Your task to perform on an android device: Open the calendar and show me this week's events? Image 0: 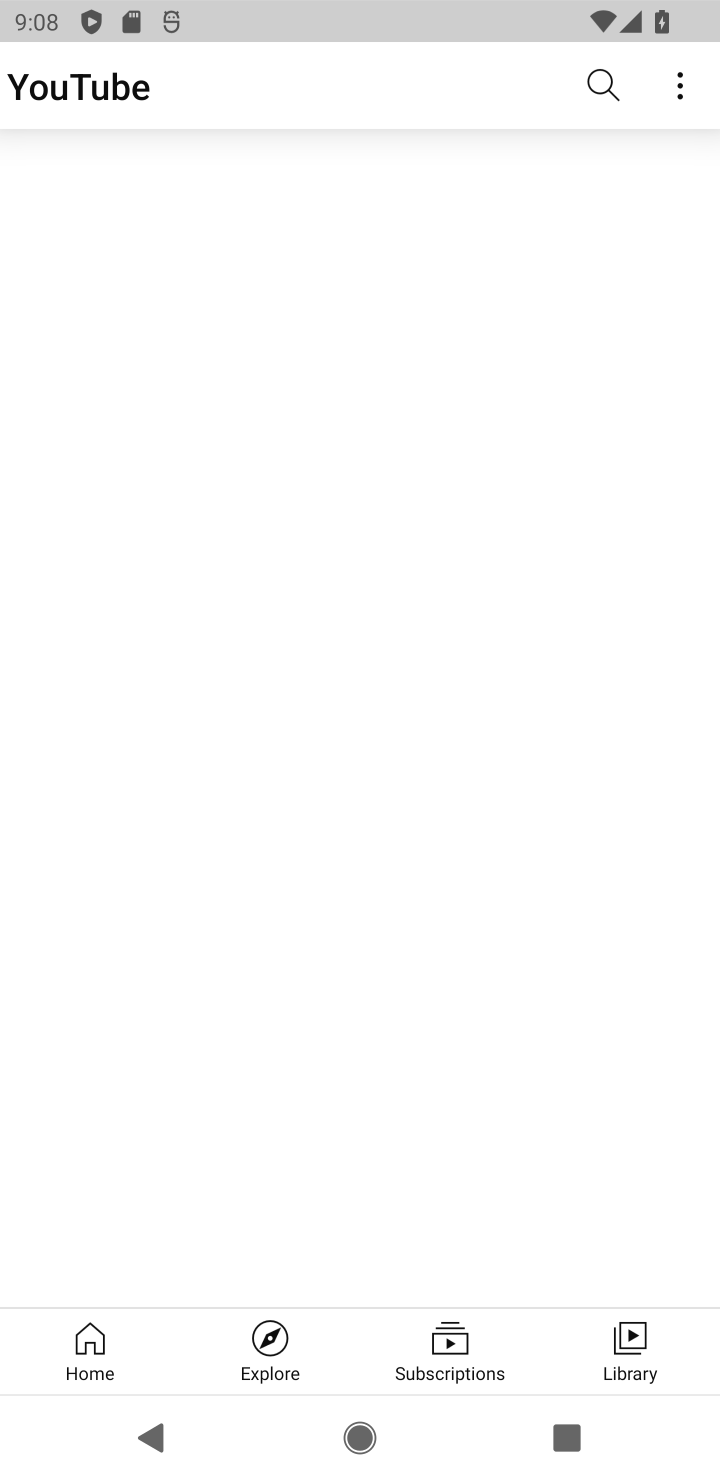
Step 0: press home button
Your task to perform on an android device: Open the calendar and show me this week's events? Image 1: 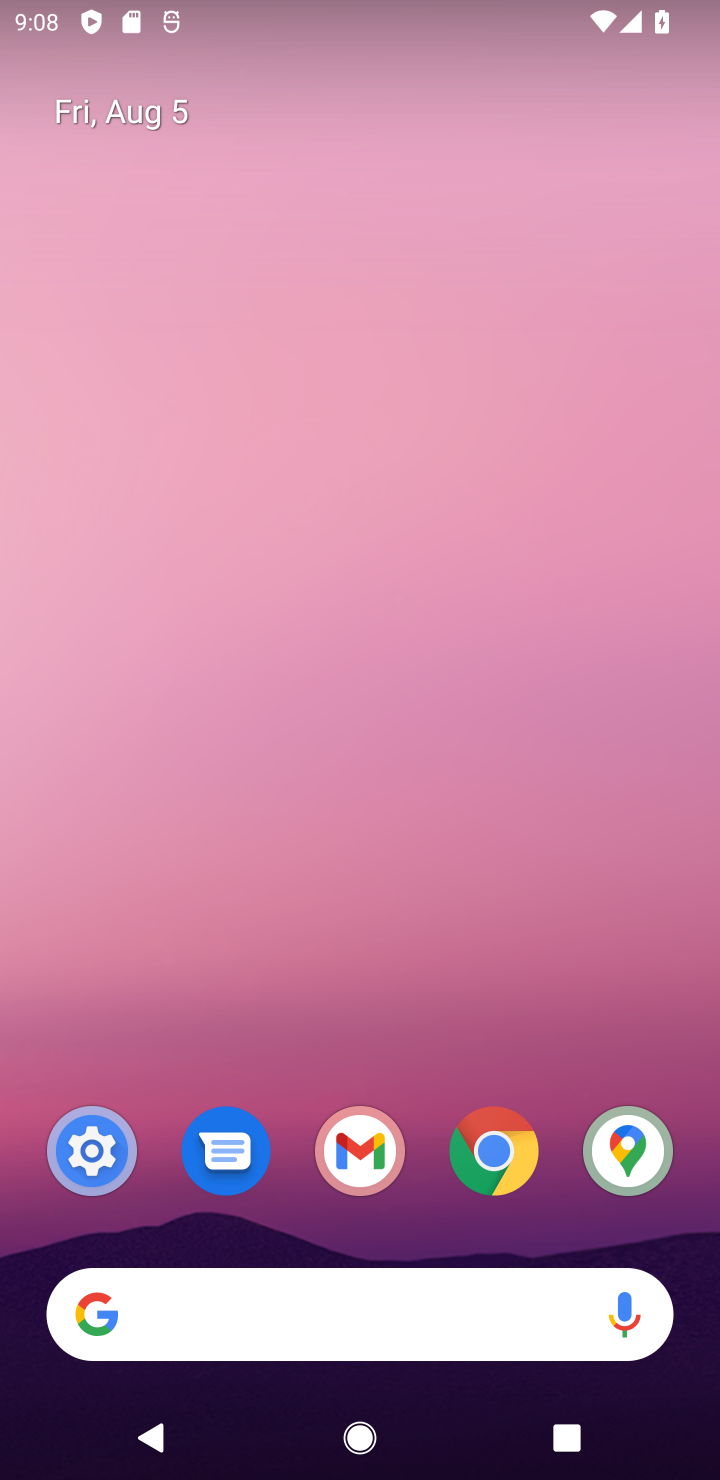
Step 1: drag from (296, 883) to (294, 454)
Your task to perform on an android device: Open the calendar and show me this week's events? Image 2: 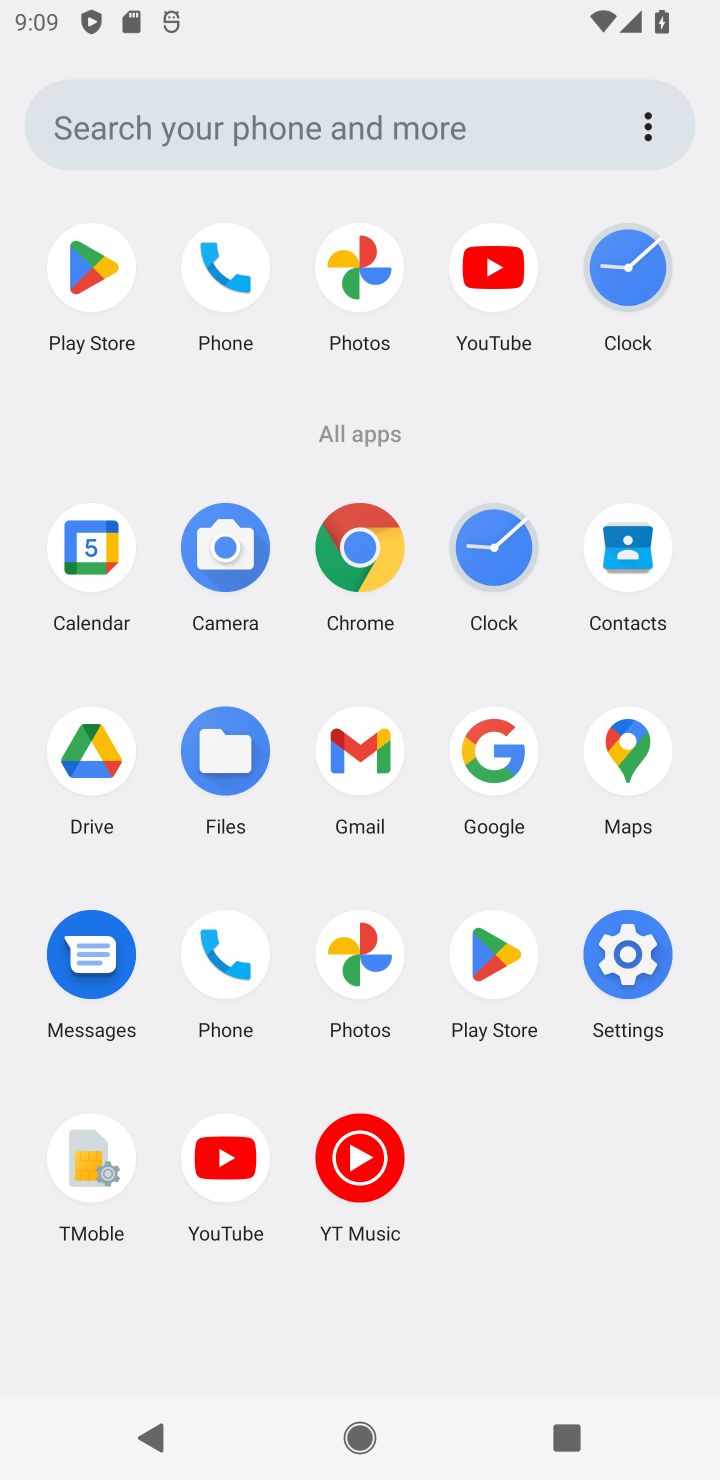
Step 2: click (86, 562)
Your task to perform on an android device: Open the calendar and show me this week's events? Image 3: 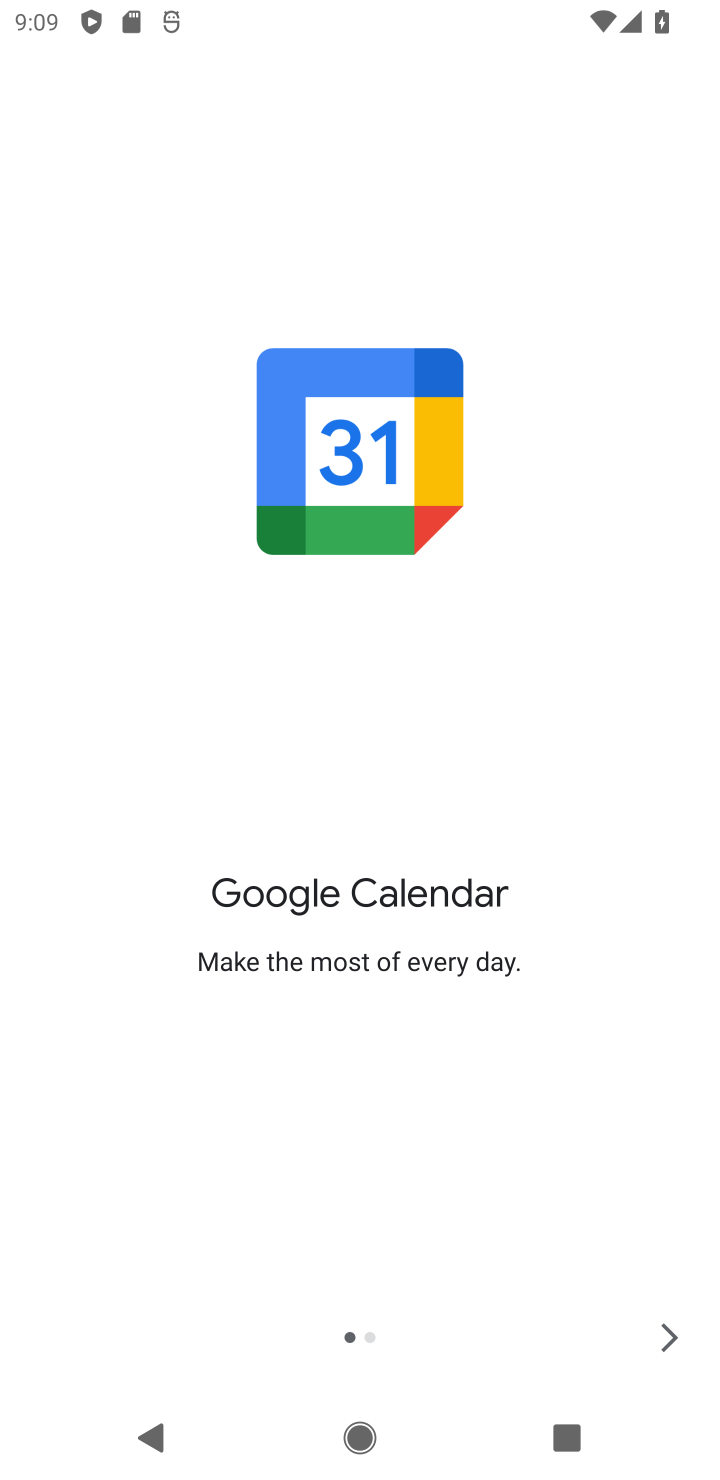
Step 3: click (667, 1349)
Your task to perform on an android device: Open the calendar and show me this week's events? Image 4: 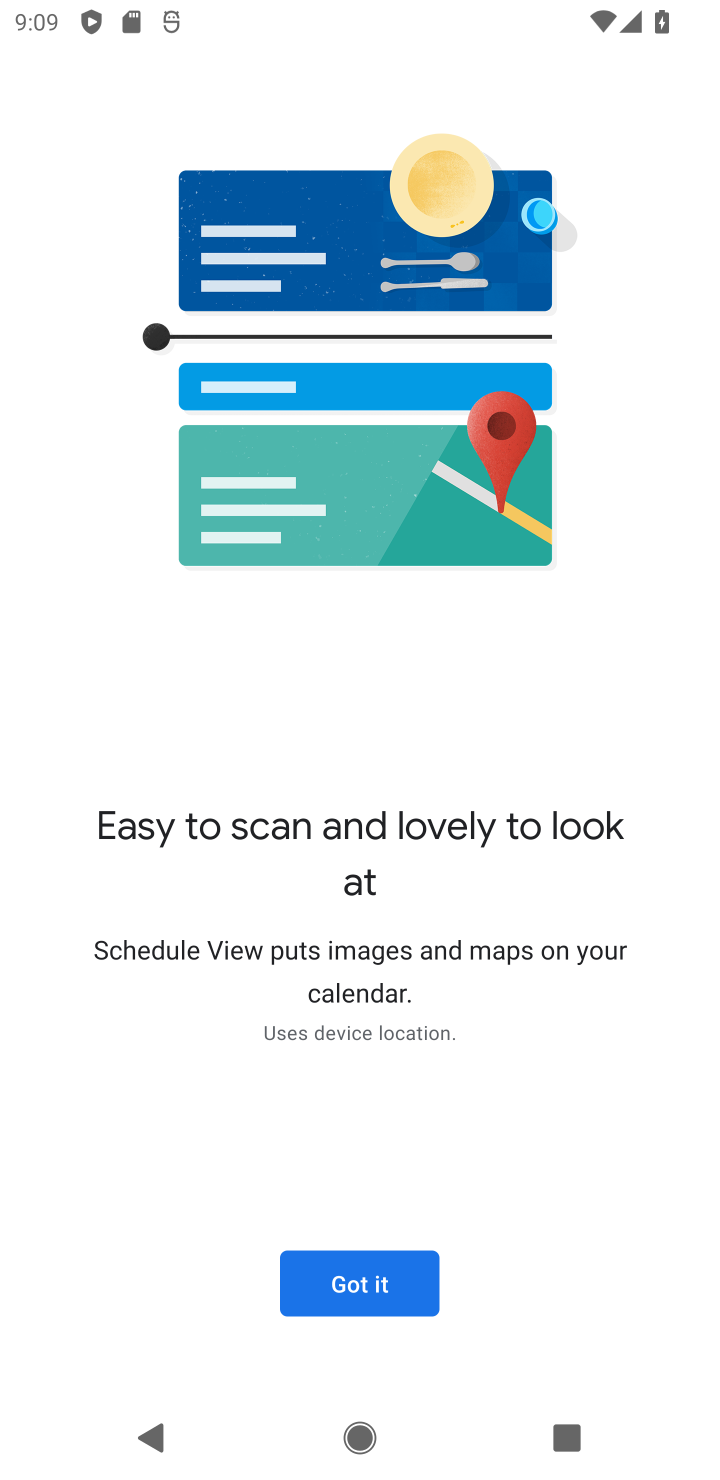
Step 4: click (667, 1349)
Your task to perform on an android device: Open the calendar and show me this week's events? Image 5: 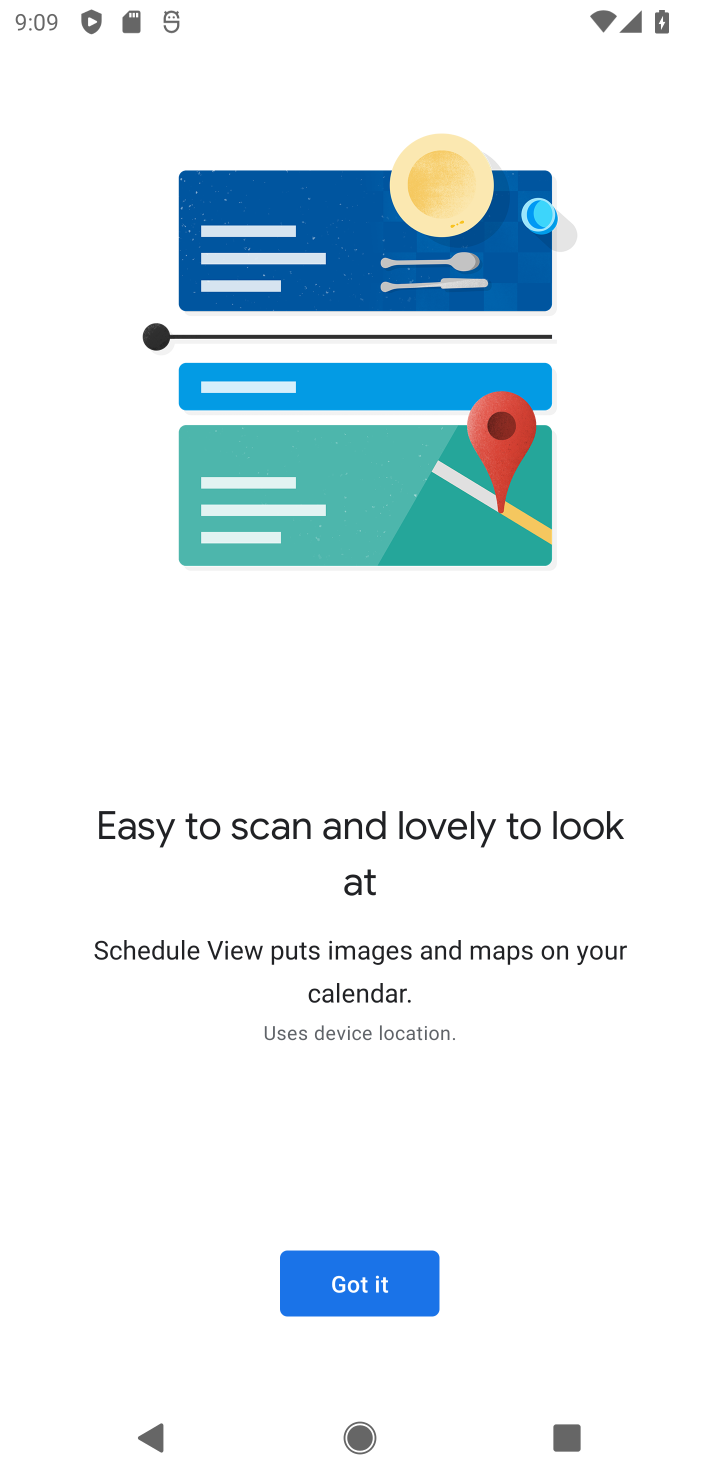
Step 5: click (327, 1265)
Your task to perform on an android device: Open the calendar and show me this week's events? Image 6: 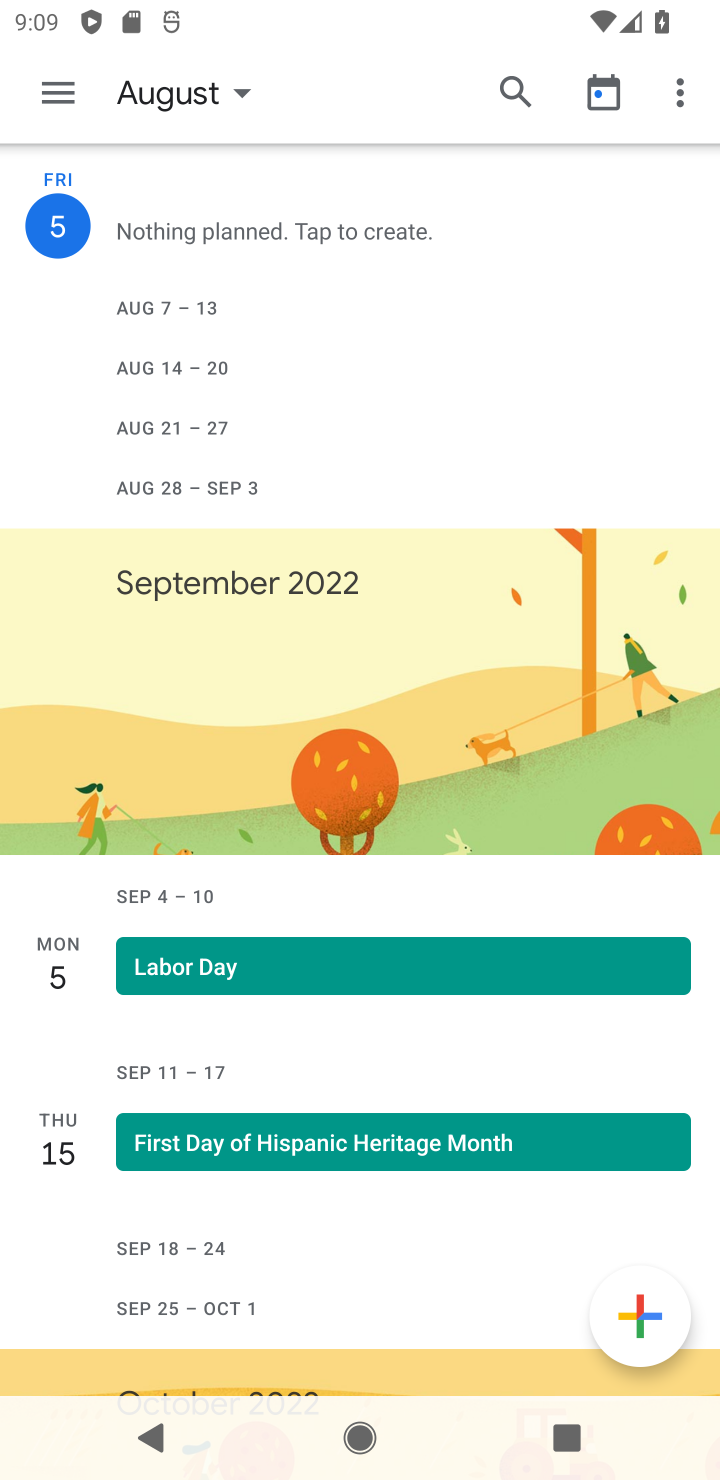
Step 6: click (73, 97)
Your task to perform on an android device: Open the calendar and show me this week's events? Image 7: 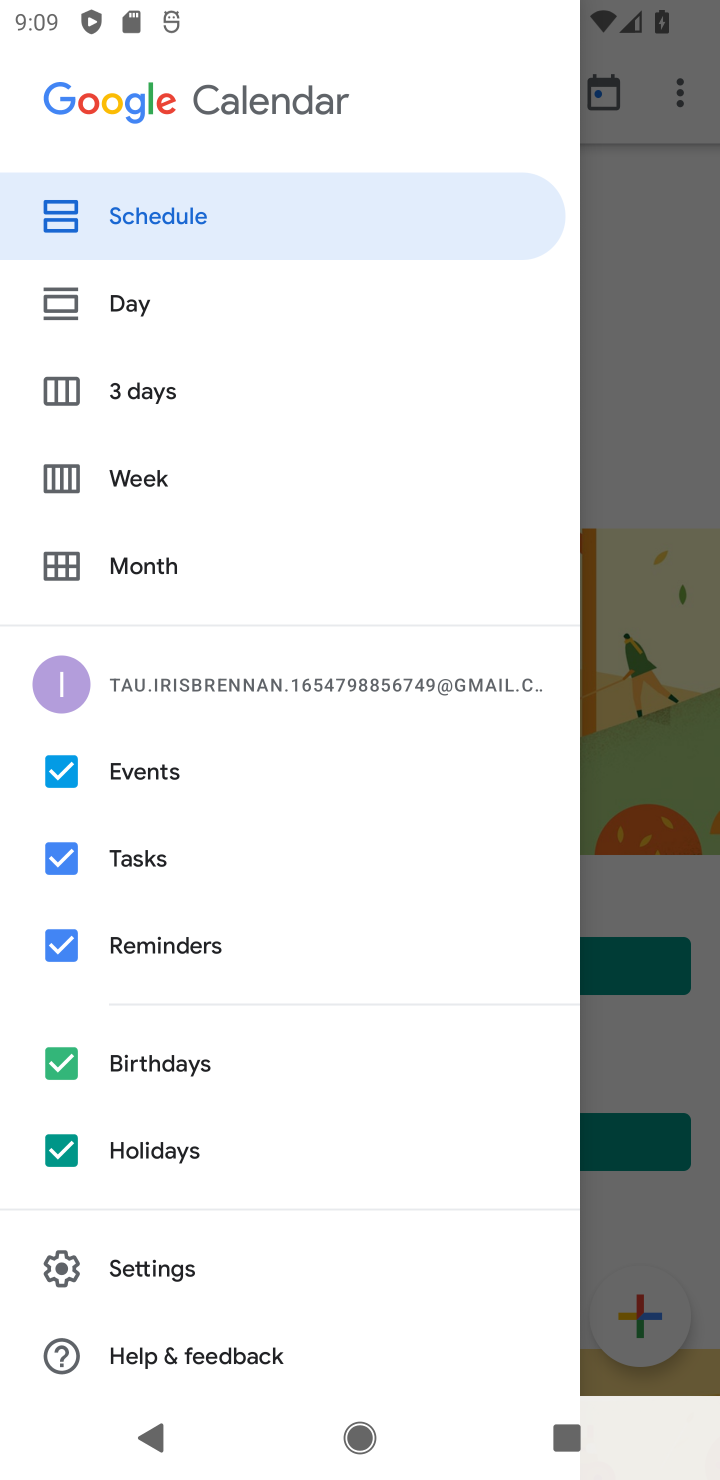
Step 7: click (136, 474)
Your task to perform on an android device: Open the calendar and show me this week's events? Image 8: 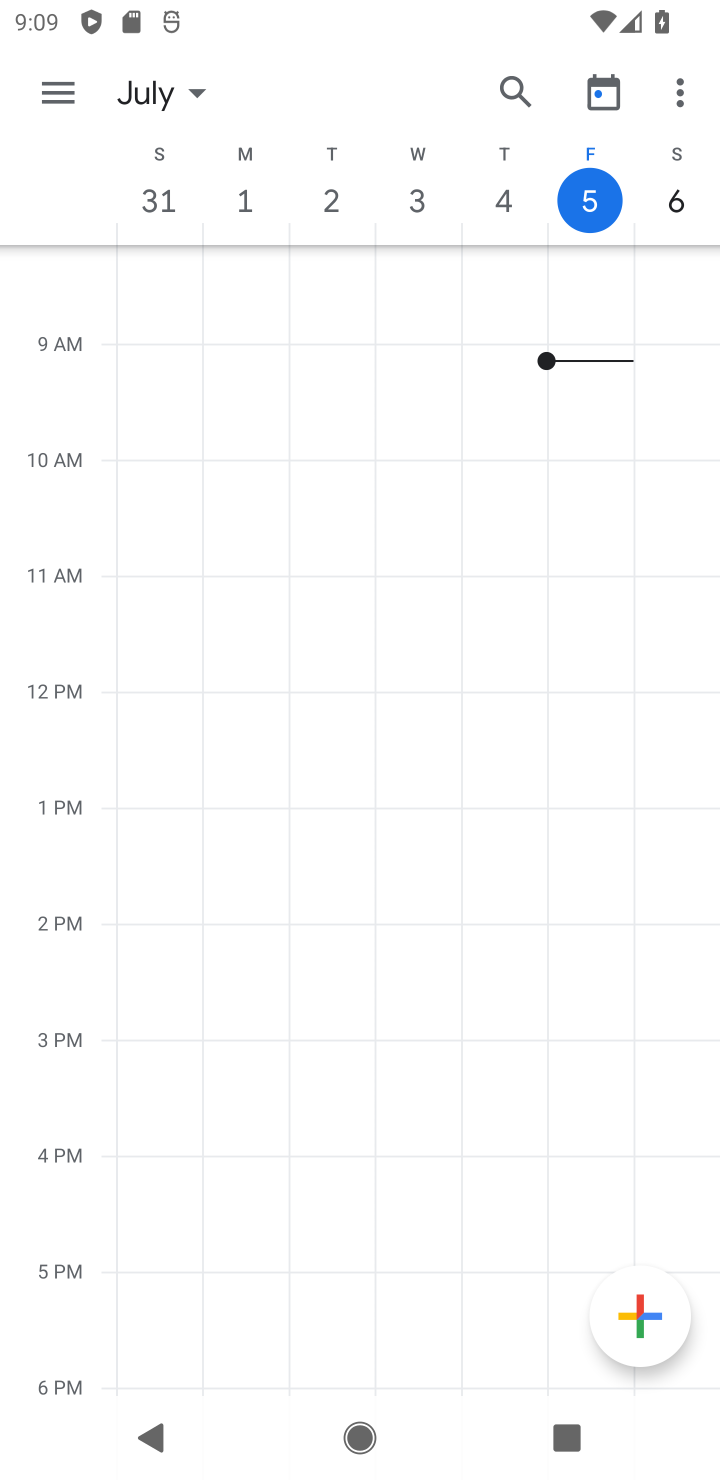
Step 8: task complete